Your task to perform on an android device: Is it going to rain tomorrow? Image 0: 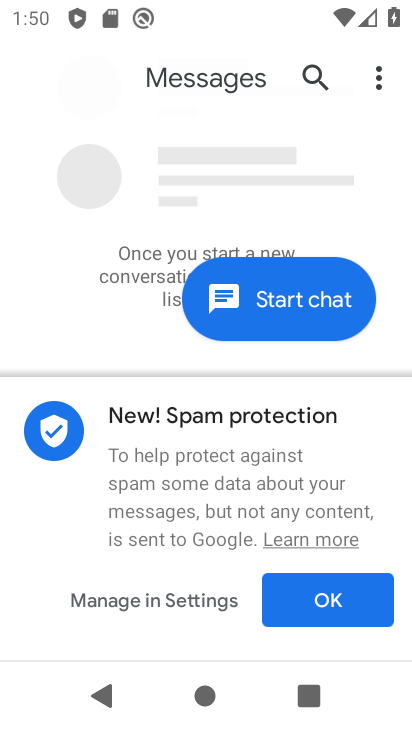
Step 0: press home button
Your task to perform on an android device: Is it going to rain tomorrow? Image 1: 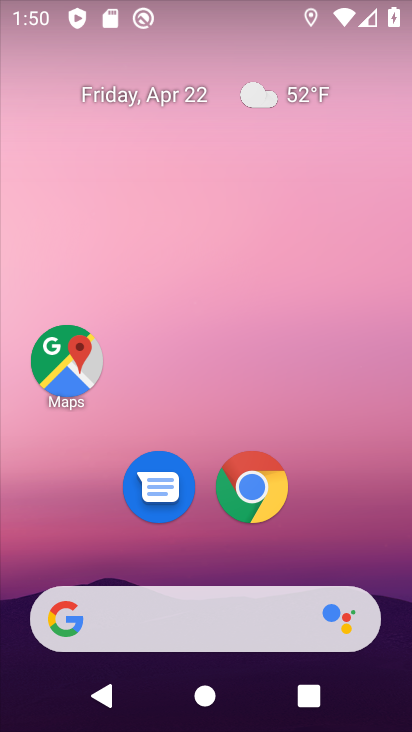
Step 1: click (300, 105)
Your task to perform on an android device: Is it going to rain tomorrow? Image 2: 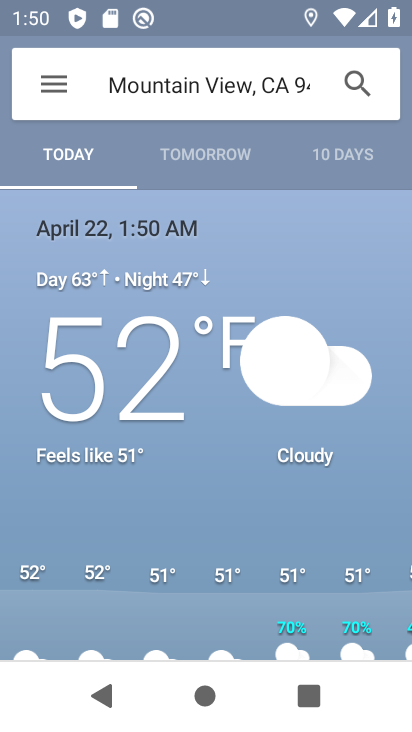
Step 2: click (217, 164)
Your task to perform on an android device: Is it going to rain tomorrow? Image 3: 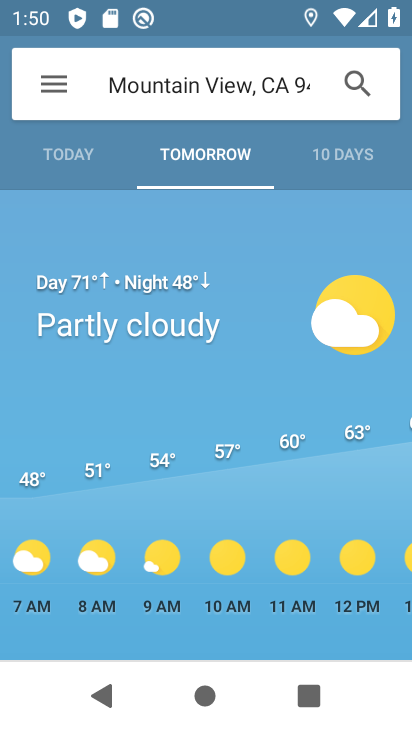
Step 3: task complete